Your task to perform on an android device: Open settings on Google Maps Image 0: 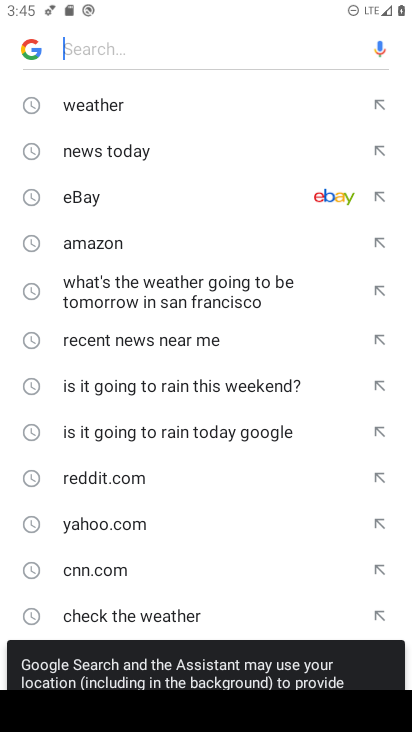
Step 0: press home button
Your task to perform on an android device: Open settings on Google Maps Image 1: 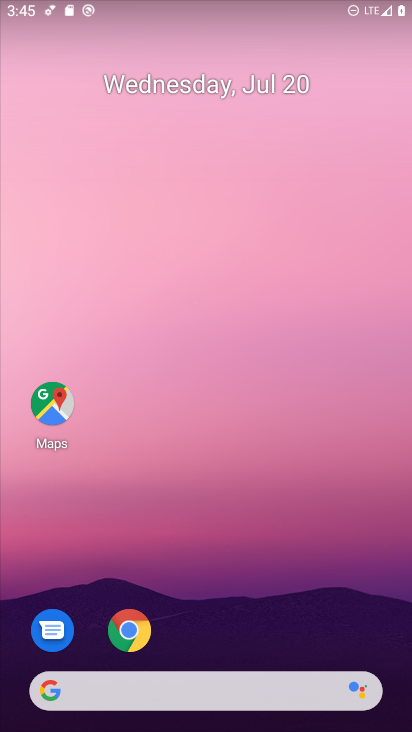
Step 1: click (48, 400)
Your task to perform on an android device: Open settings on Google Maps Image 2: 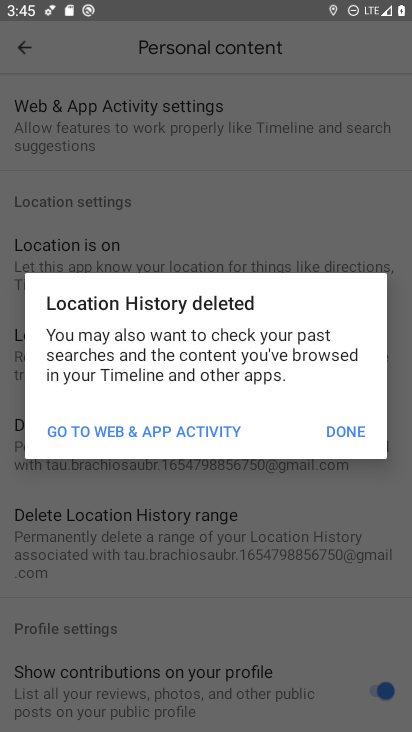
Step 2: click (345, 428)
Your task to perform on an android device: Open settings on Google Maps Image 3: 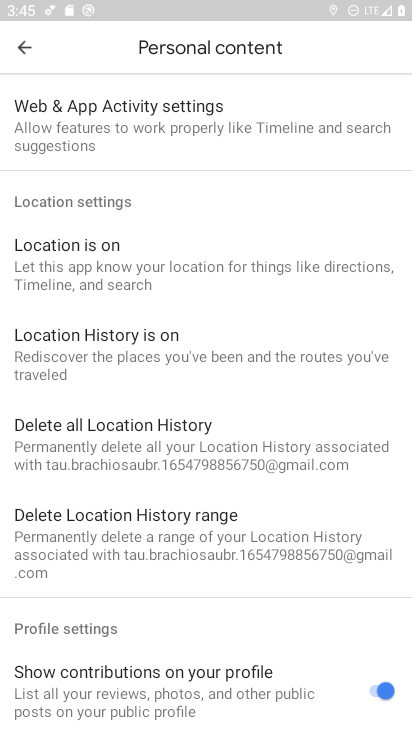
Step 3: click (29, 43)
Your task to perform on an android device: Open settings on Google Maps Image 4: 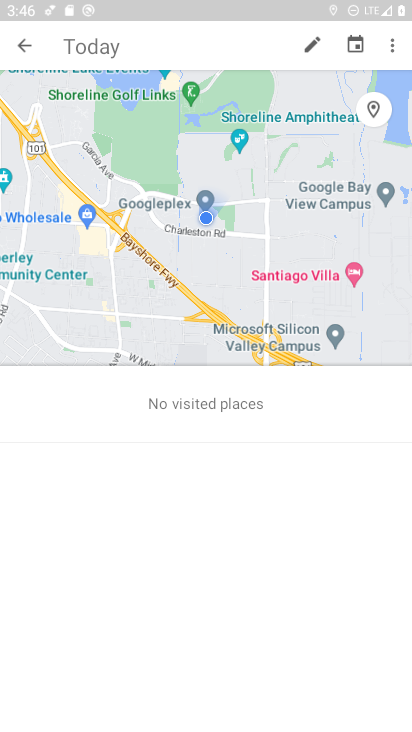
Step 4: click (18, 41)
Your task to perform on an android device: Open settings on Google Maps Image 5: 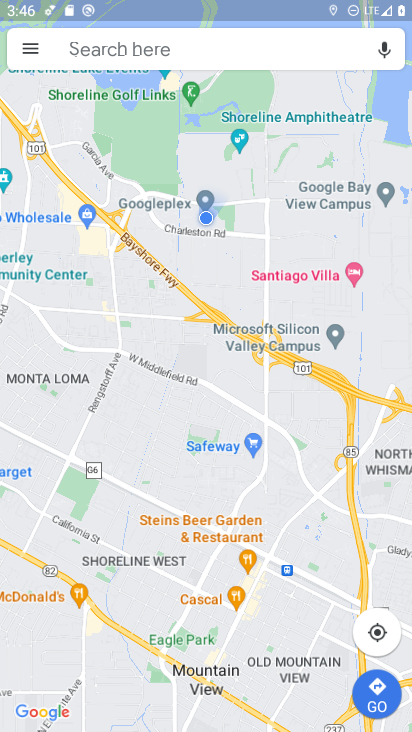
Step 5: click (27, 45)
Your task to perform on an android device: Open settings on Google Maps Image 6: 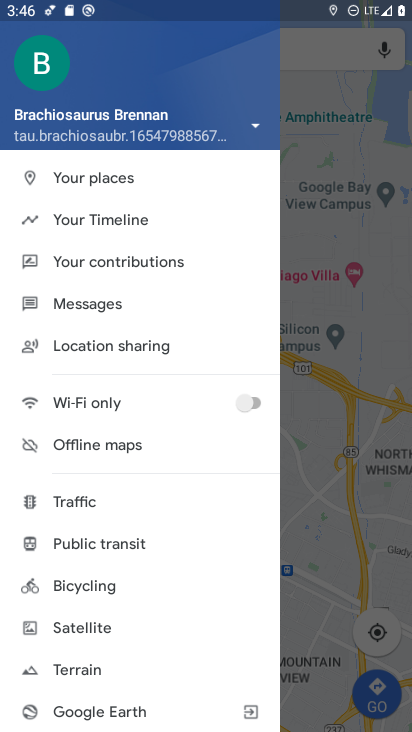
Step 6: drag from (135, 452) to (180, 112)
Your task to perform on an android device: Open settings on Google Maps Image 7: 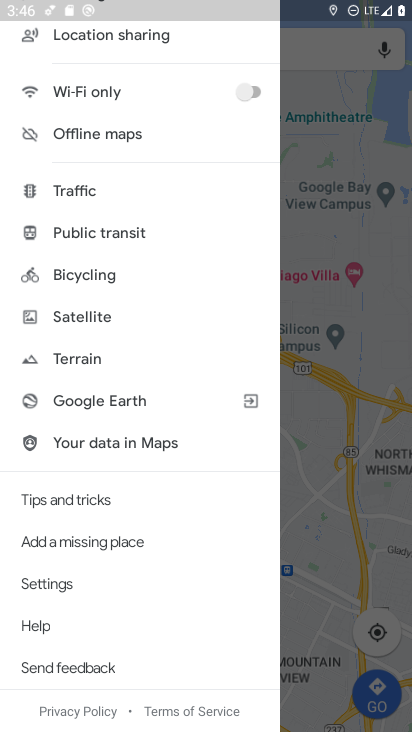
Step 7: click (77, 580)
Your task to perform on an android device: Open settings on Google Maps Image 8: 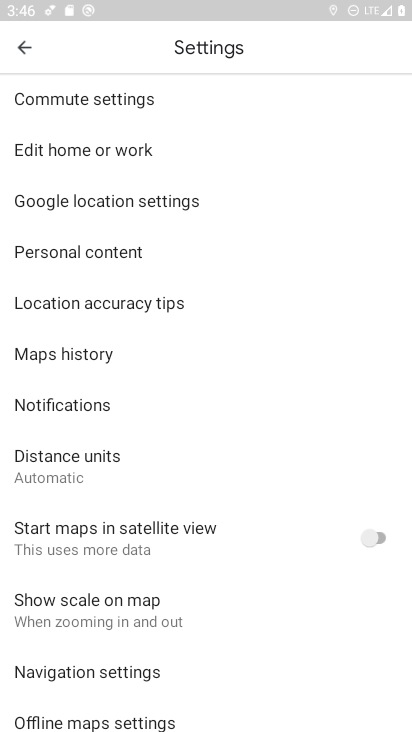
Step 8: task complete